Your task to perform on an android device: change the clock style Image 0: 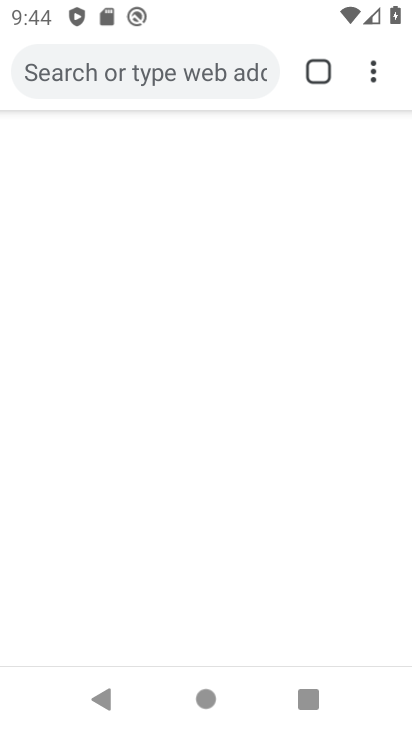
Step 0: click (317, 155)
Your task to perform on an android device: change the clock style Image 1: 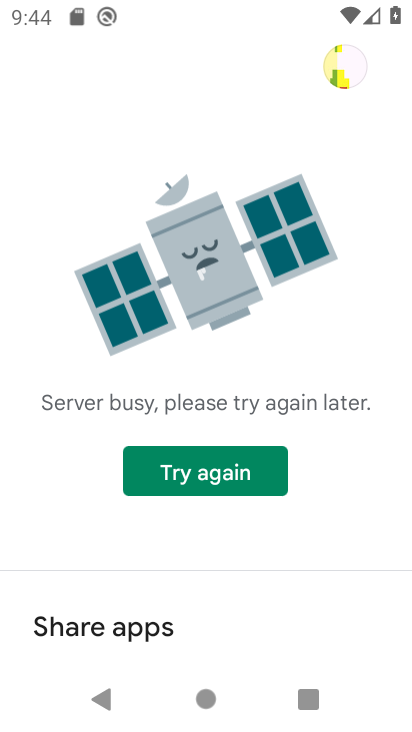
Step 1: press home button
Your task to perform on an android device: change the clock style Image 2: 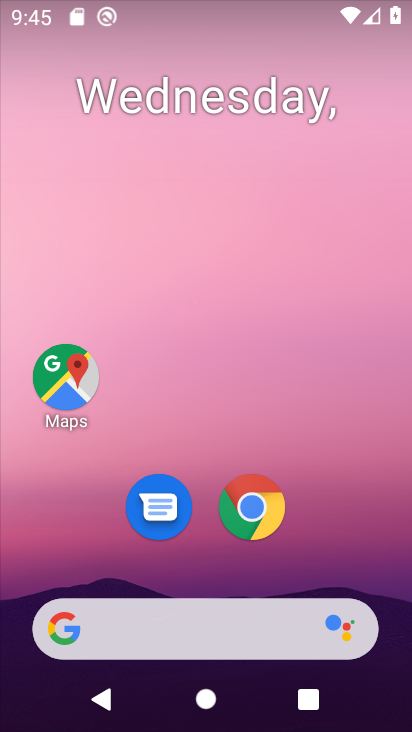
Step 2: drag from (245, 661) to (208, 149)
Your task to perform on an android device: change the clock style Image 3: 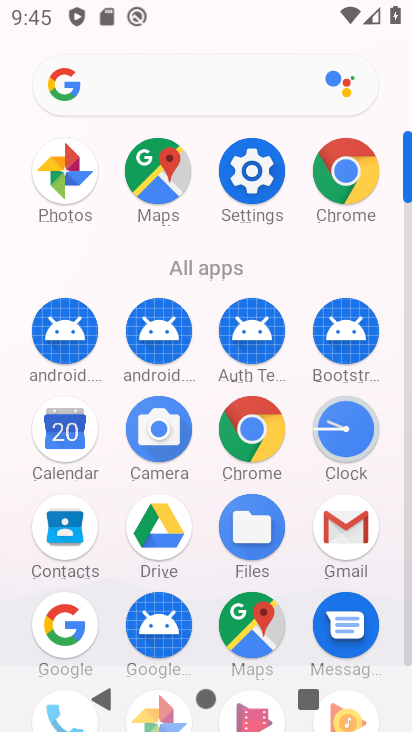
Step 3: click (352, 445)
Your task to perform on an android device: change the clock style Image 4: 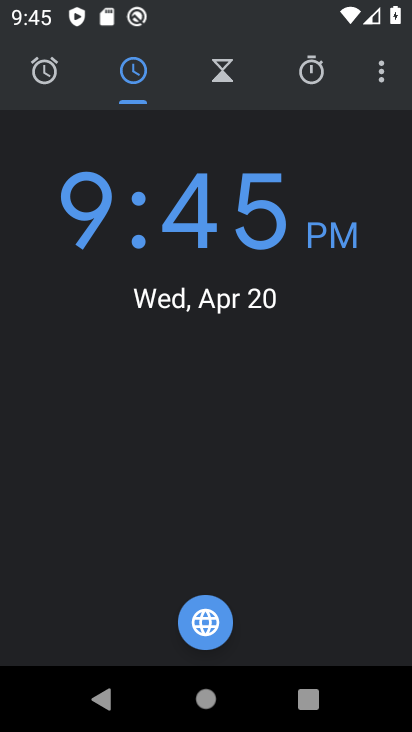
Step 4: click (397, 73)
Your task to perform on an android device: change the clock style Image 5: 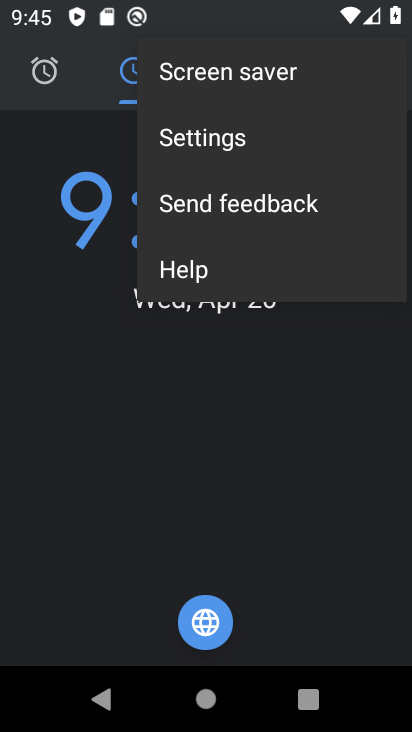
Step 5: click (239, 117)
Your task to perform on an android device: change the clock style Image 6: 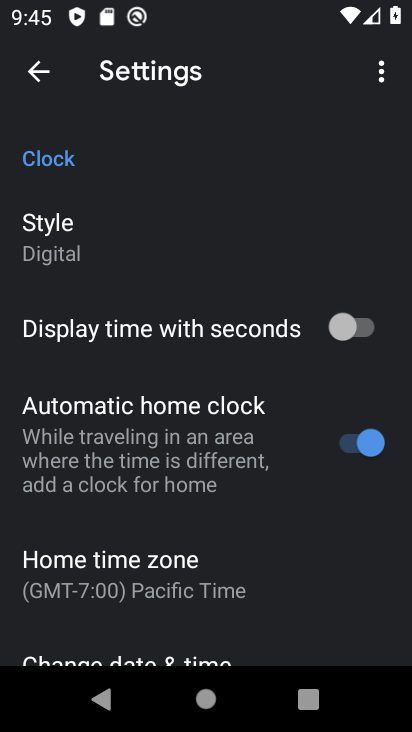
Step 6: click (112, 236)
Your task to perform on an android device: change the clock style Image 7: 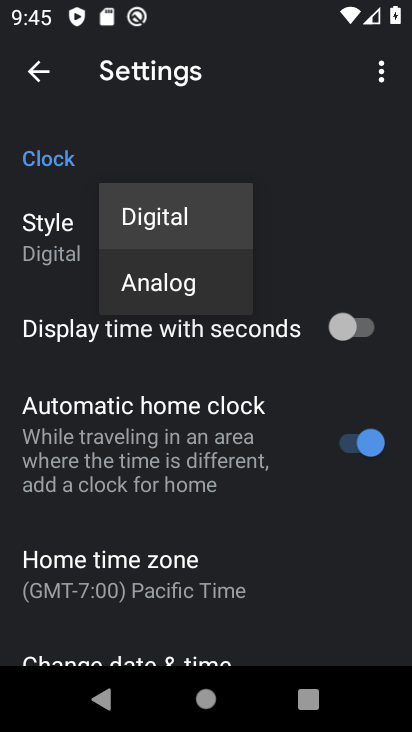
Step 7: click (183, 279)
Your task to perform on an android device: change the clock style Image 8: 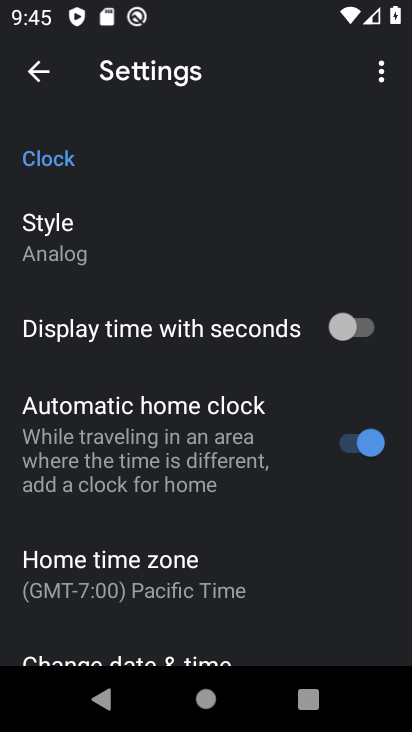
Step 8: task complete